Your task to perform on an android device: delete a single message in the gmail app Image 0: 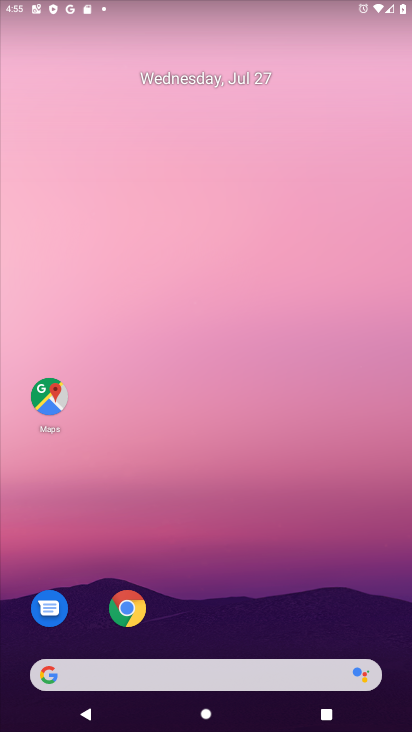
Step 0: drag from (271, 653) to (188, 105)
Your task to perform on an android device: delete a single message in the gmail app Image 1: 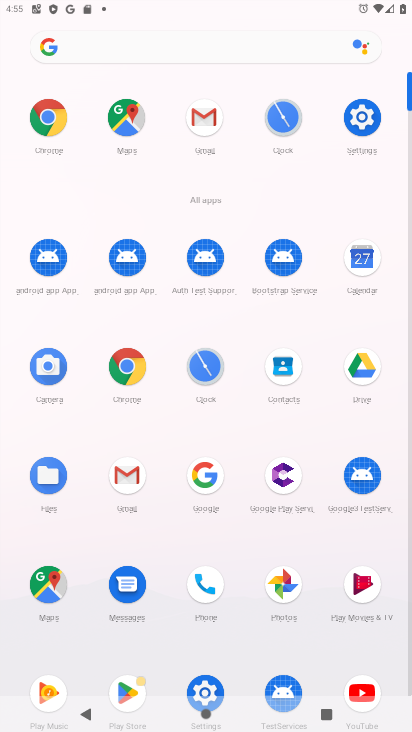
Step 1: click (198, 108)
Your task to perform on an android device: delete a single message in the gmail app Image 2: 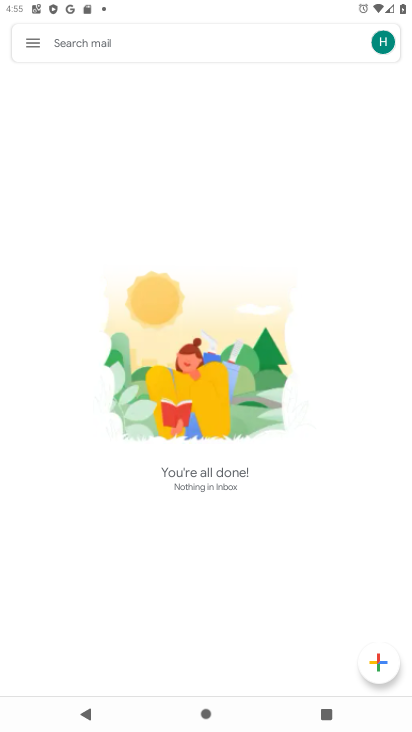
Step 2: task complete